Your task to perform on an android device: check the backup settings in the google photos Image 0: 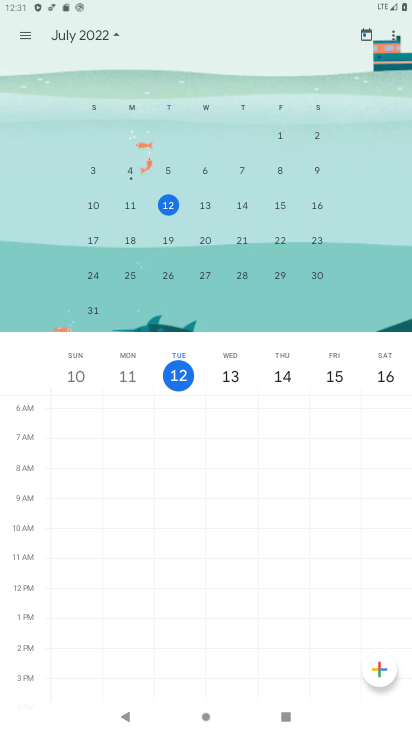
Step 0: press home button
Your task to perform on an android device: check the backup settings in the google photos Image 1: 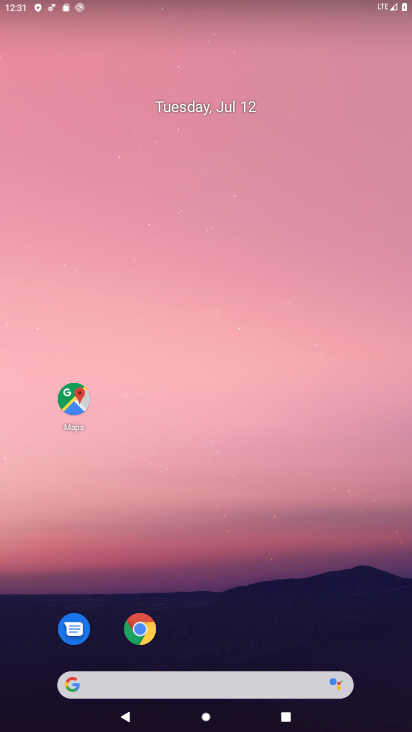
Step 1: drag from (292, 680) to (349, 0)
Your task to perform on an android device: check the backup settings in the google photos Image 2: 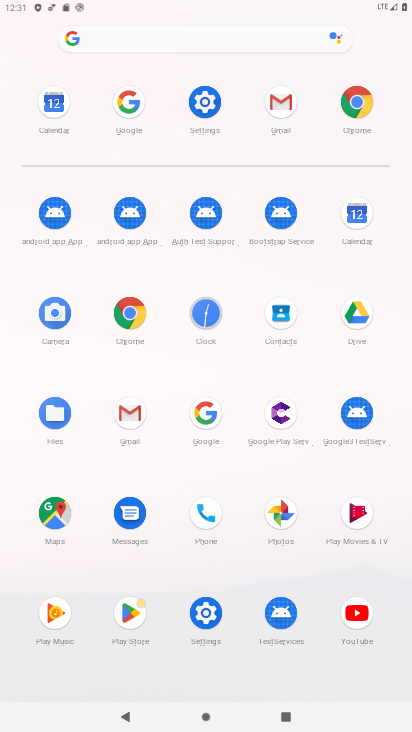
Step 2: click (277, 520)
Your task to perform on an android device: check the backup settings in the google photos Image 3: 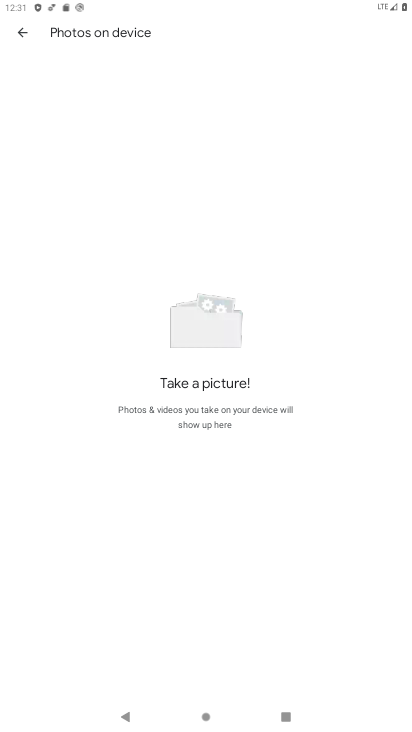
Step 3: press back button
Your task to perform on an android device: check the backup settings in the google photos Image 4: 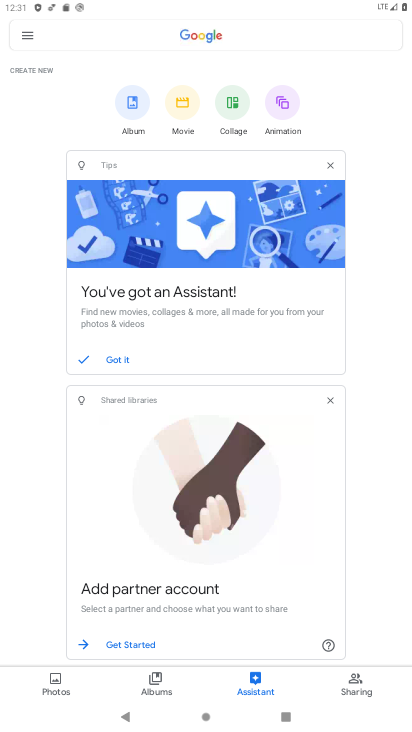
Step 4: click (33, 31)
Your task to perform on an android device: check the backup settings in the google photos Image 5: 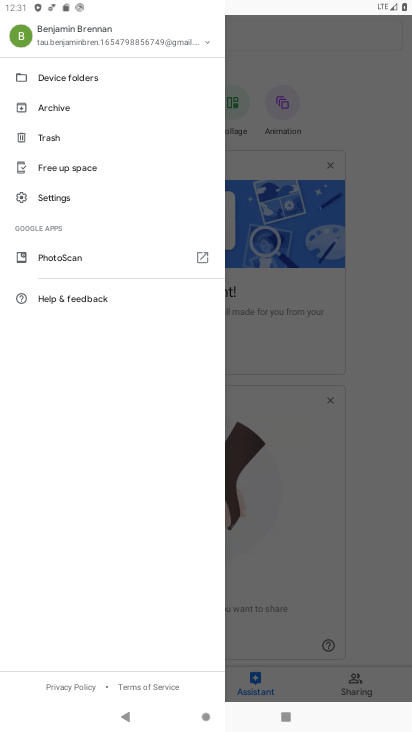
Step 5: click (74, 198)
Your task to perform on an android device: check the backup settings in the google photos Image 6: 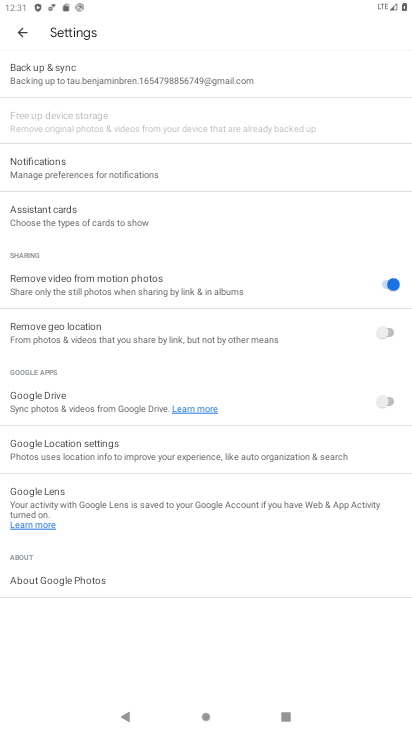
Step 6: click (73, 76)
Your task to perform on an android device: check the backup settings in the google photos Image 7: 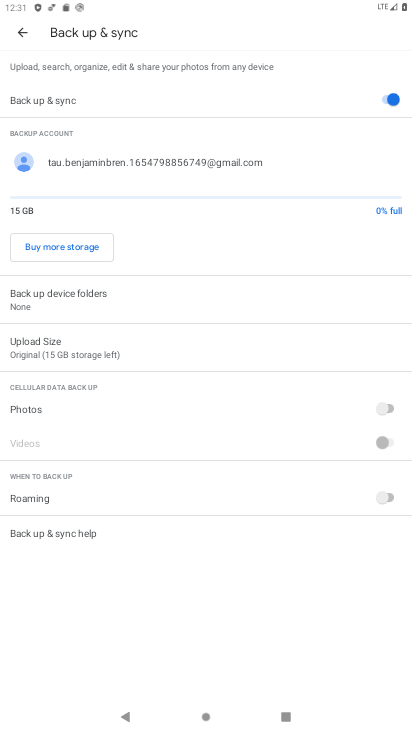
Step 7: task complete